Your task to perform on an android device: turn smart compose on in the gmail app Image 0: 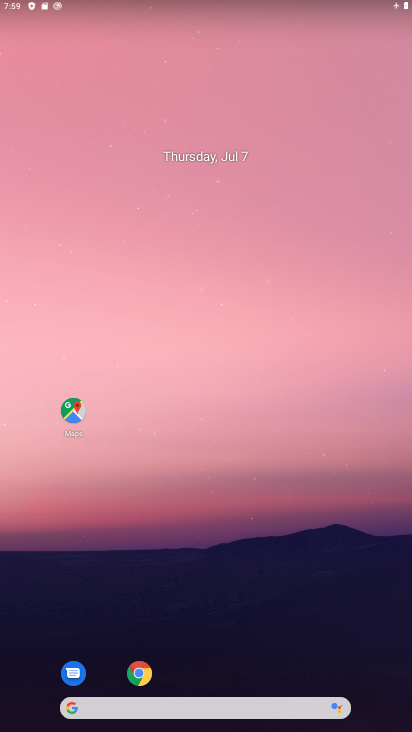
Step 0: drag from (214, 680) to (154, 59)
Your task to perform on an android device: turn smart compose on in the gmail app Image 1: 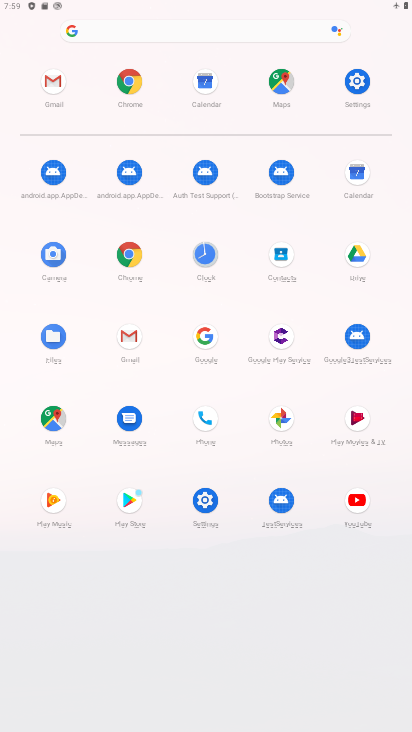
Step 1: click (127, 342)
Your task to perform on an android device: turn smart compose on in the gmail app Image 2: 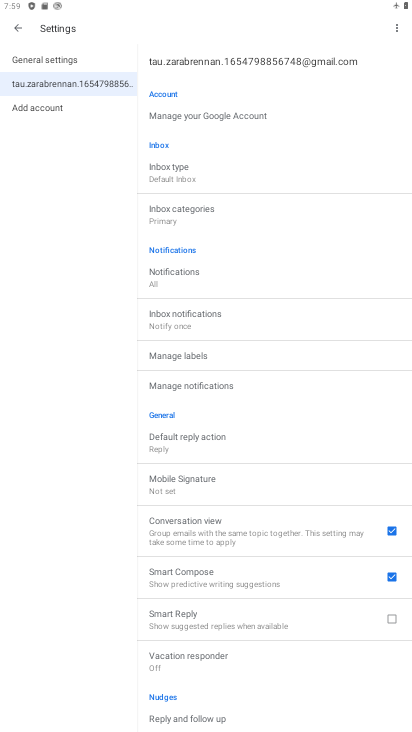
Step 2: task complete